Your task to perform on an android device: Open internet settings Image 0: 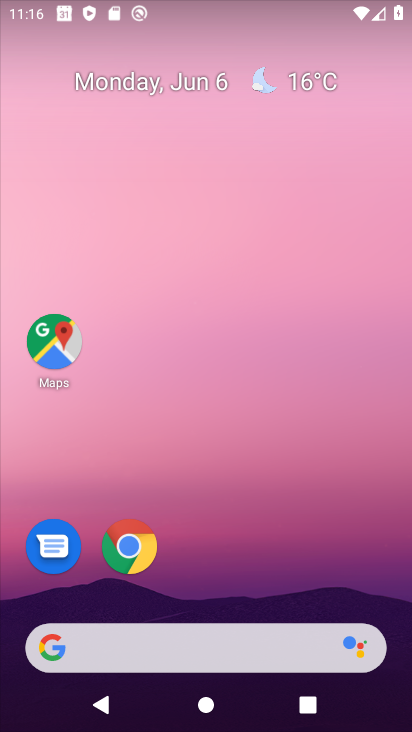
Step 0: drag from (245, 572) to (240, 177)
Your task to perform on an android device: Open internet settings Image 1: 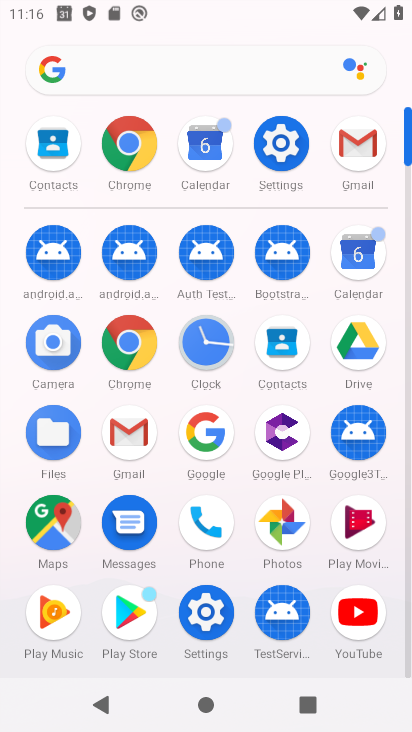
Step 1: click (279, 128)
Your task to perform on an android device: Open internet settings Image 2: 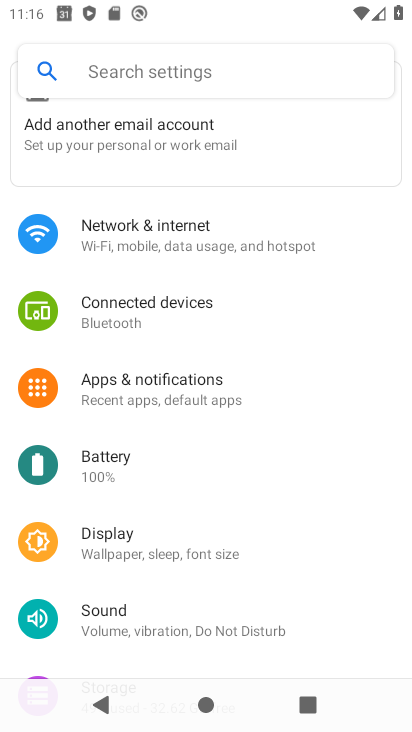
Step 2: click (135, 222)
Your task to perform on an android device: Open internet settings Image 3: 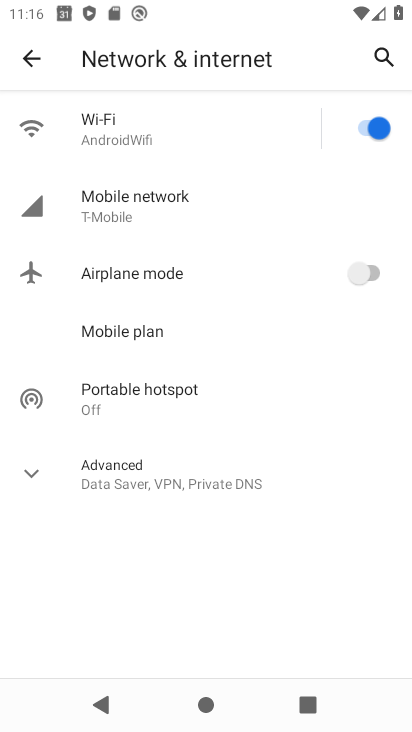
Step 3: task complete